Your task to perform on an android device: Open the web browser Image 0: 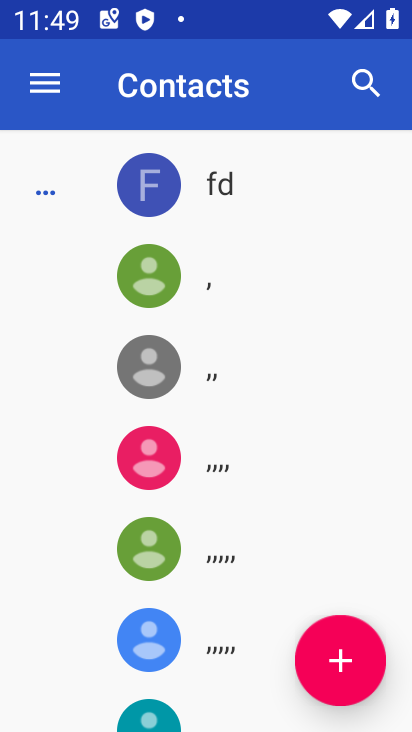
Step 0: press home button
Your task to perform on an android device: Open the web browser Image 1: 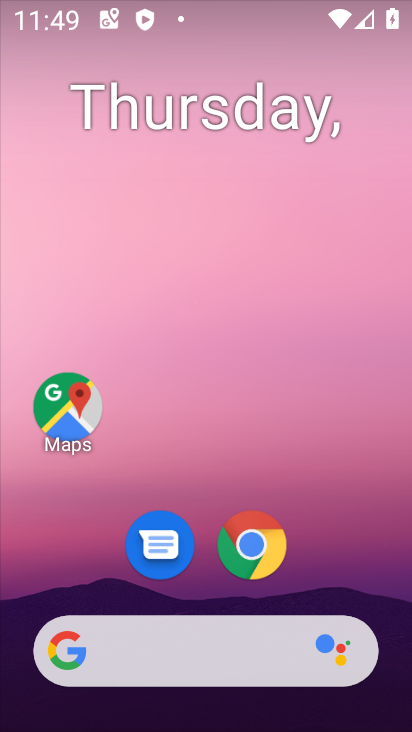
Step 1: click (244, 550)
Your task to perform on an android device: Open the web browser Image 2: 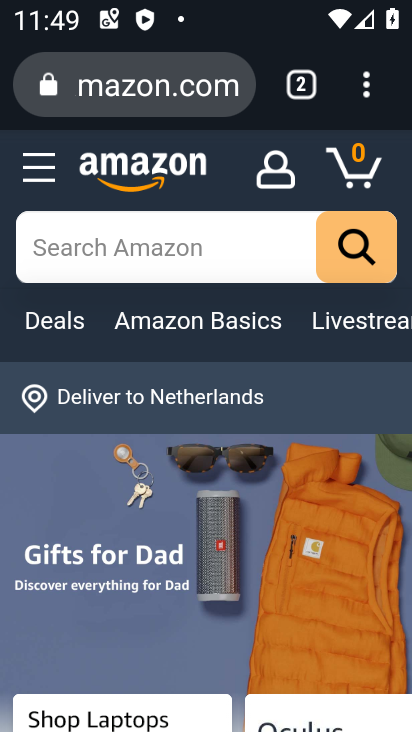
Step 2: task complete